Your task to perform on an android device: create a new album in the google photos Image 0: 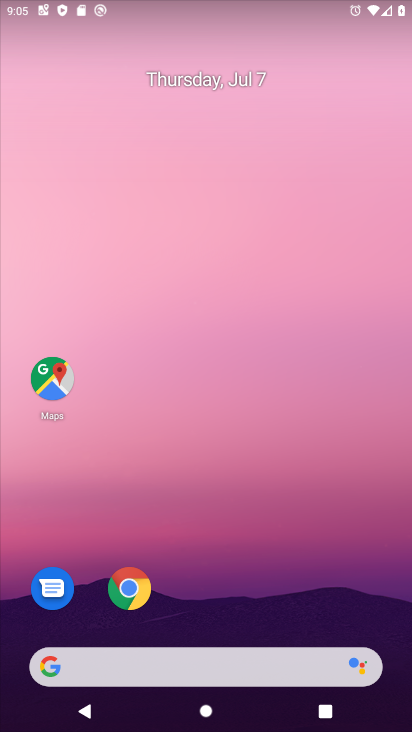
Step 0: press home button
Your task to perform on an android device: create a new album in the google photos Image 1: 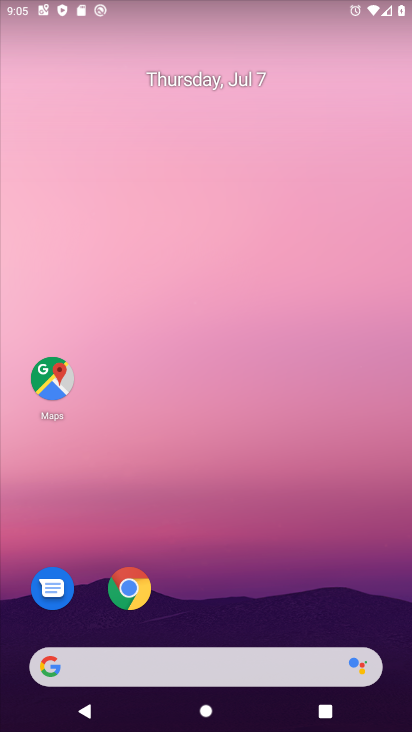
Step 1: drag from (244, 635) to (251, 0)
Your task to perform on an android device: create a new album in the google photos Image 2: 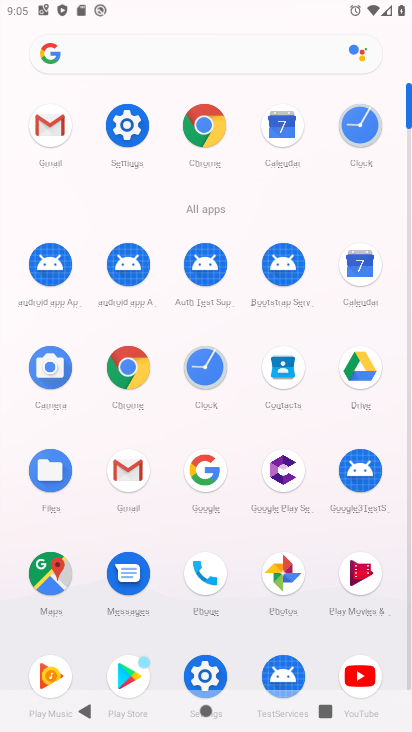
Step 2: click (283, 567)
Your task to perform on an android device: create a new album in the google photos Image 3: 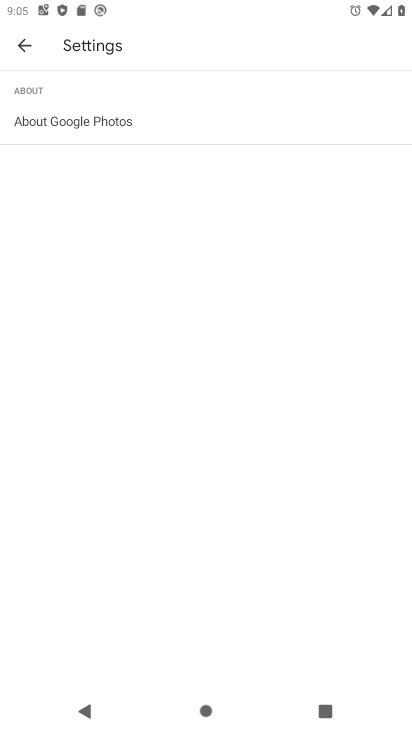
Step 3: press home button
Your task to perform on an android device: create a new album in the google photos Image 4: 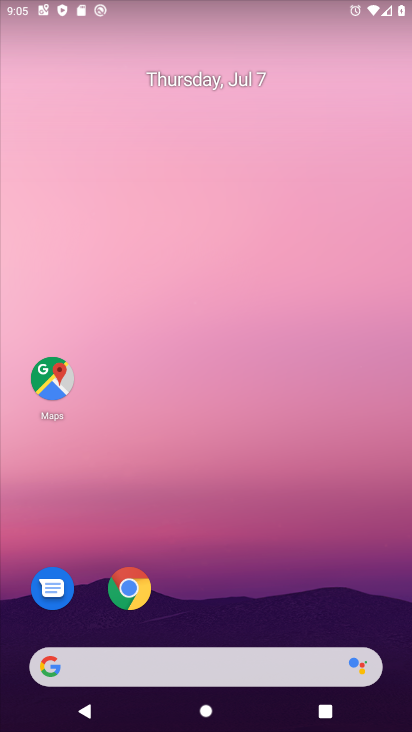
Step 4: drag from (216, 620) to (273, 24)
Your task to perform on an android device: create a new album in the google photos Image 5: 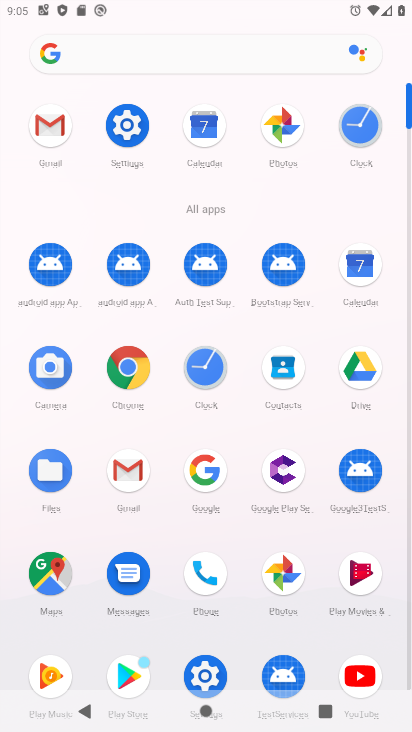
Step 5: click (280, 121)
Your task to perform on an android device: create a new album in the google photos Image 6: 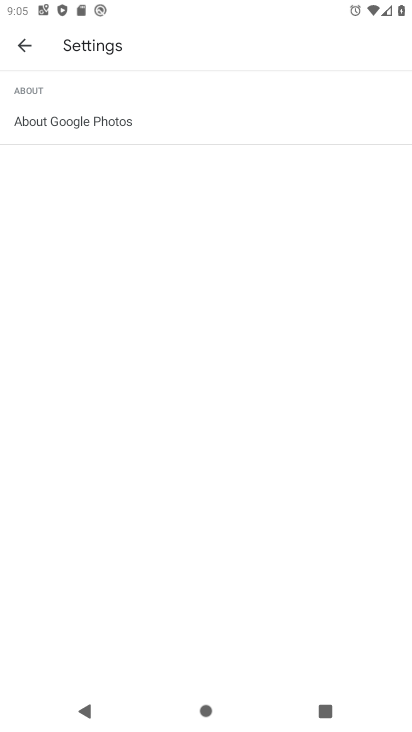
Step 6: click (28, 39)
Your task to perform on an android device: create a new album in the google photos Image 7: 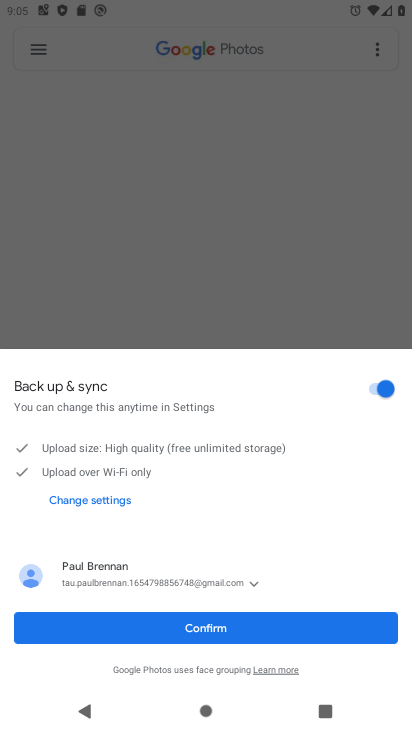
Step 7: click (208, 629)
Your task to perform on an android device: create a new album in the google photos Image 8: 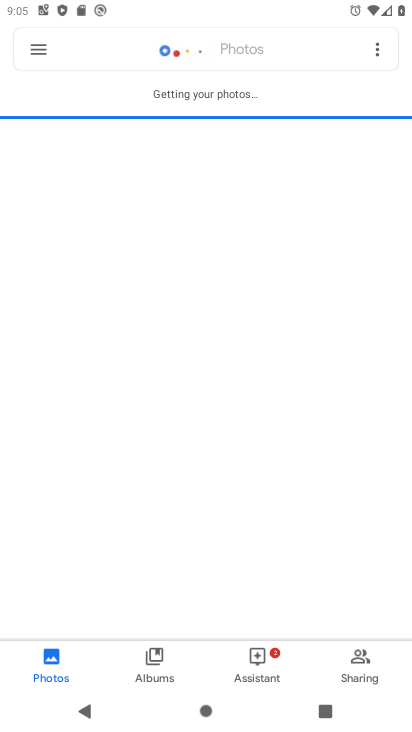
Step 8: click (378, 47)
Your task to perform on an android device: create a new album in the google photos Image 9: 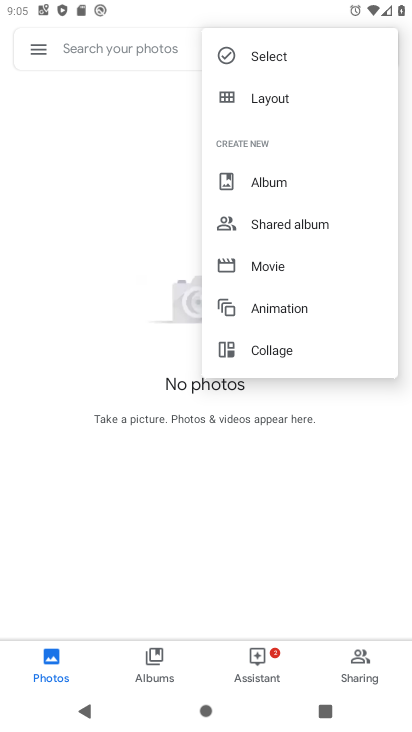
Step 9: click (288, 179)
Your task to perform on an android device: create a new album in the google photos Image 10: 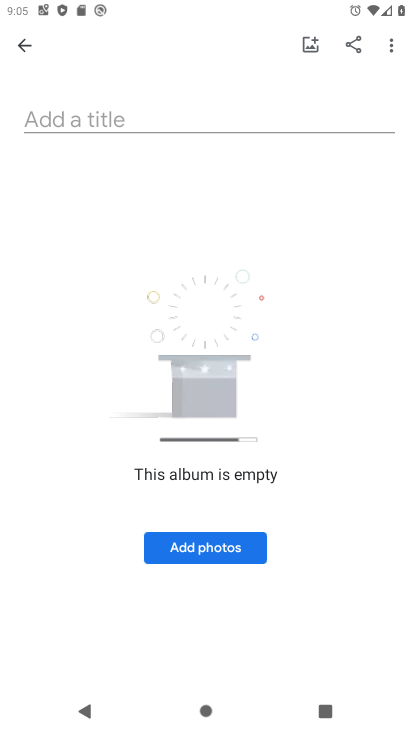
Step 10: click (205, 541)
Your task to perform on an android device: create a new album in the google photos Image 11: 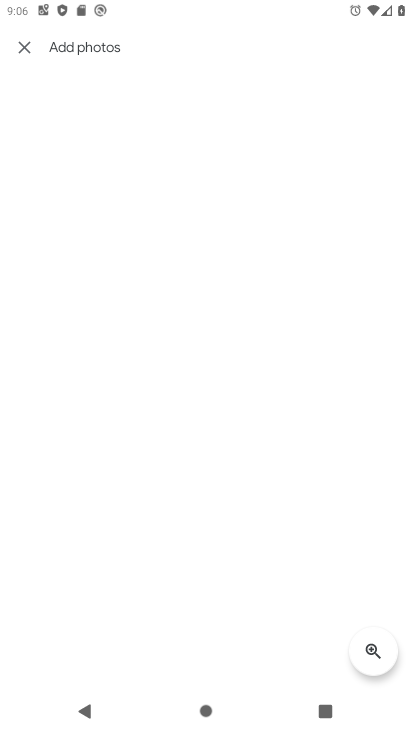
Step 11: task complete